Your task to perform on an android device: open a bookmark in the chrome app Image 0: 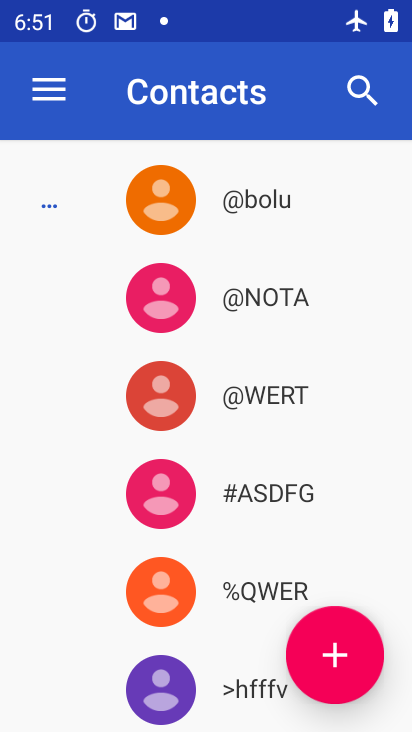
Step 0: press home button
Your task to perform on an android device: open a bookmark in the chrome app Image 1: 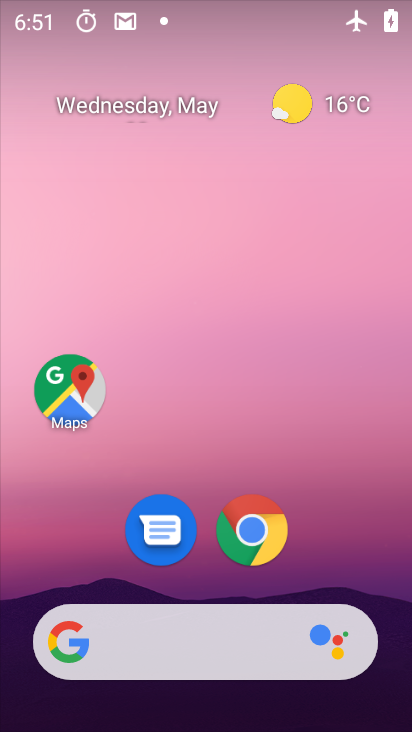
Step 1: click (257, 534)
Your task to perform on an android device: open a bookmark in the chrome app Image 2: 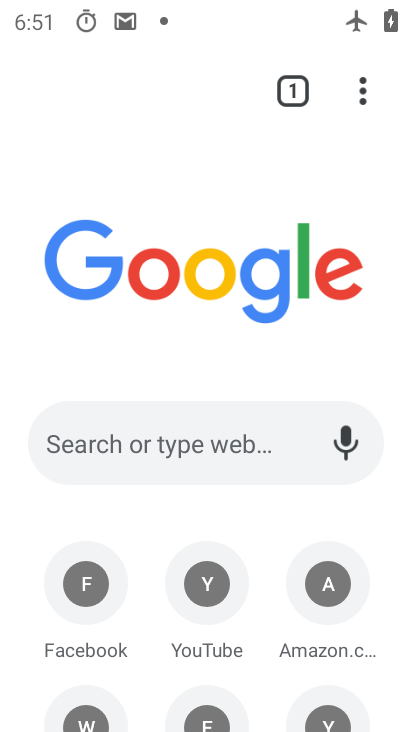
Step 2: click (365, 91)
Your task to perform on an android device: open a bookmark in the chrome app Image 3: 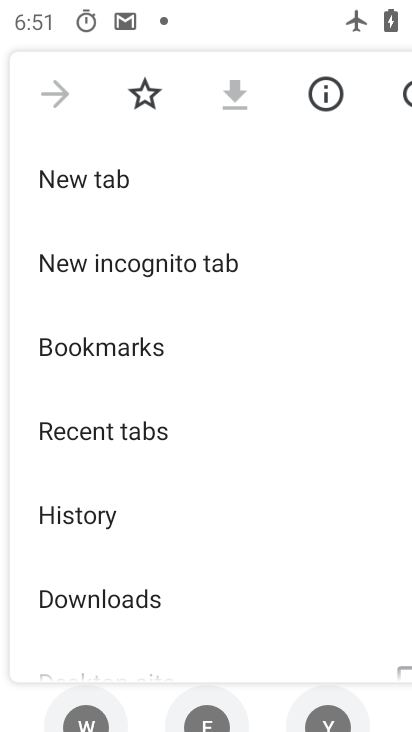
Step 3: click (103, 343)
Your task to perform on an android device: open a bookmark in the chrome app Image 4: 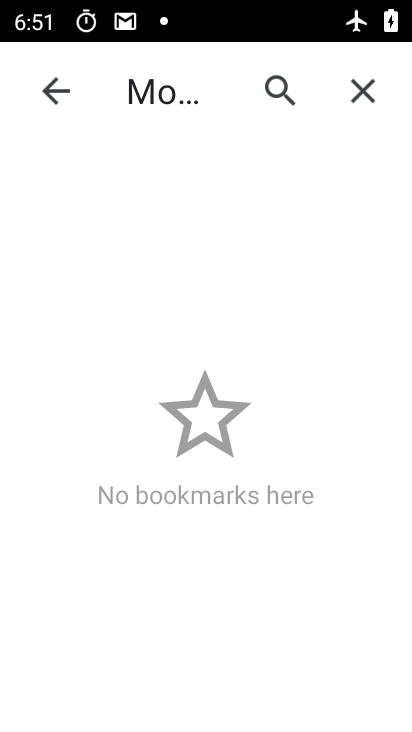
Step 4: task complete